Your task to perform on an android device: add a contact in the contacts app Image 0: 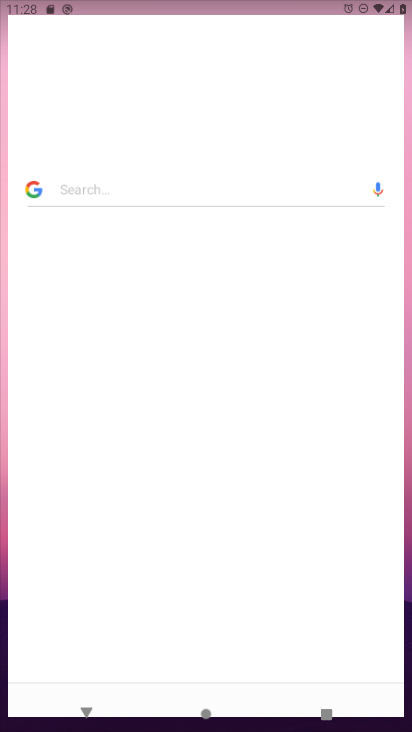
Step 0: drag from (197, 345) to (99, 7)
Your task to perform on an android device: add a contact in the contacts app Image 1: 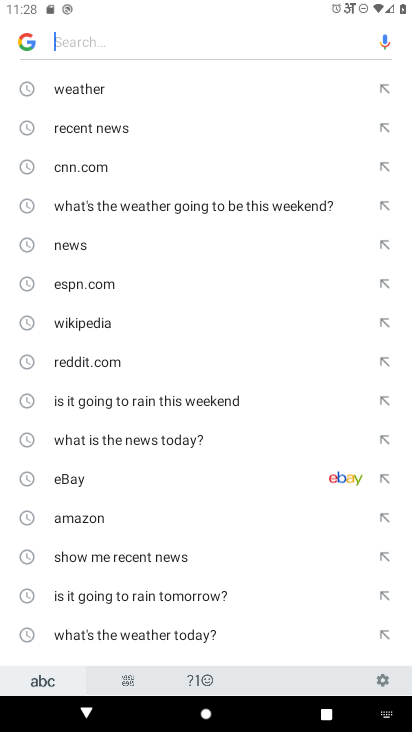
Step 1: press back button
Your task to perform on an android device: add a contact in the contacts app Image 2: 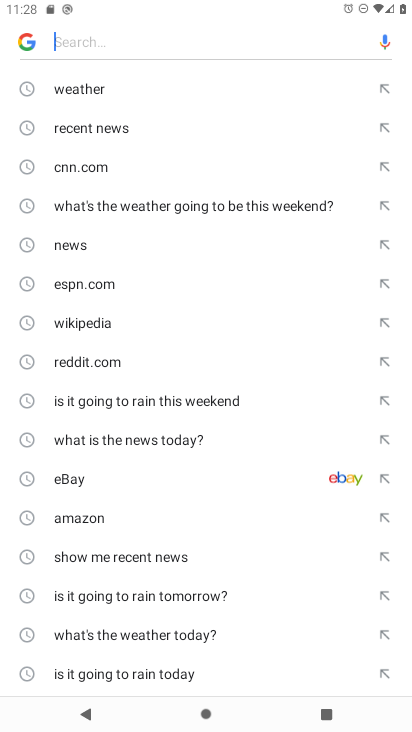
Step 2: press home button
Your task to perform on an android device: add a contact in the contacts app Image 3: 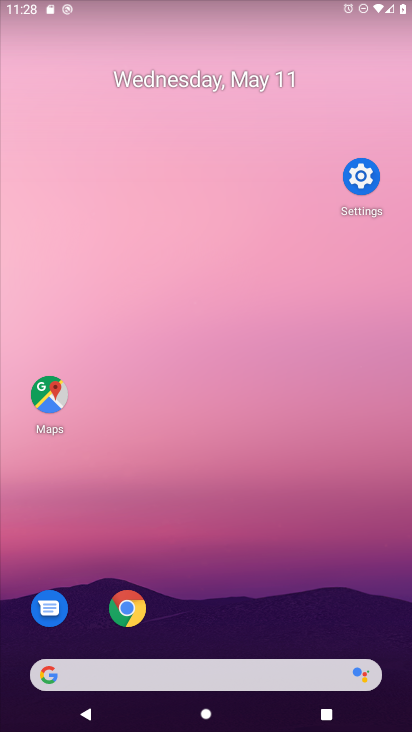
Step 3: drag from (238, 550) to (129, 65)
Your task to perform on an android device: add a contact in the contacts app Image 4: 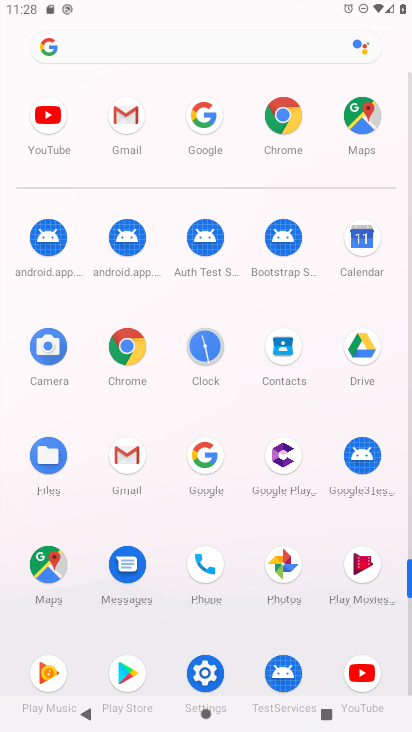
Step 4: click (284, 345)
Your task to perform on an android device: add a contact in the contacts app Image 5: 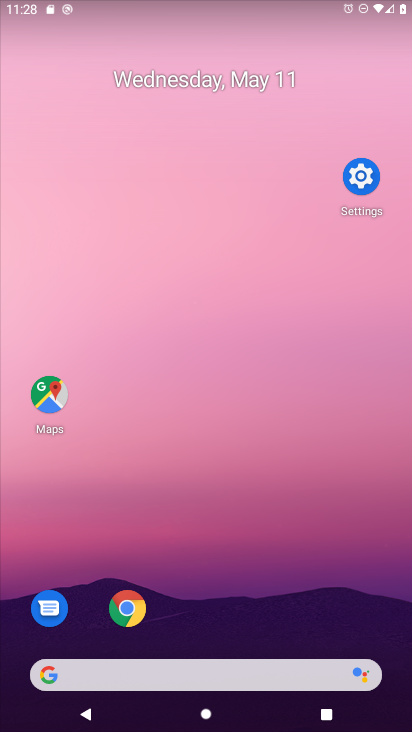
Step 5: drag from (291, 563) to (157, 40)
Your task to perform on an android device: add a contact in the contacts app Image 6: 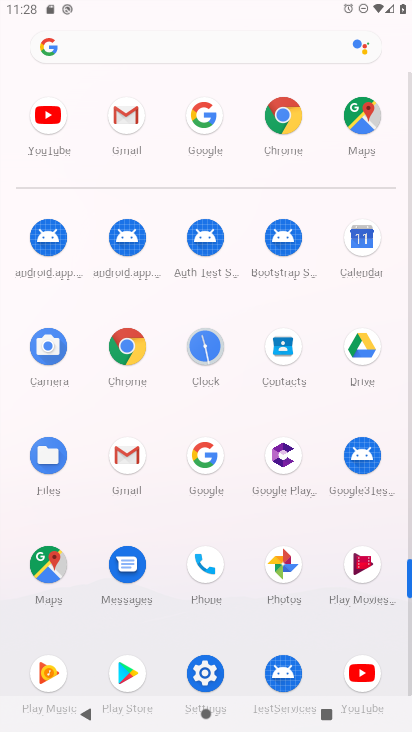
Step 6: click (282, 353)
Your task to perform on an android device: add a contact in the contacts app Image 7: 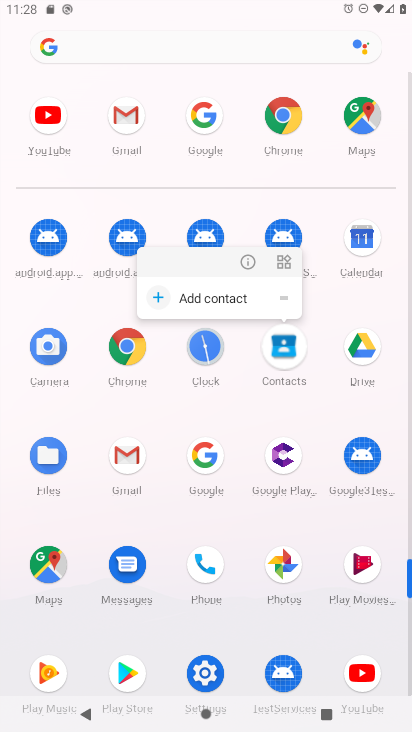
Step 7: click (288, 352)
Your task to perform on an android device: add a contact in the contacts app Image 8: 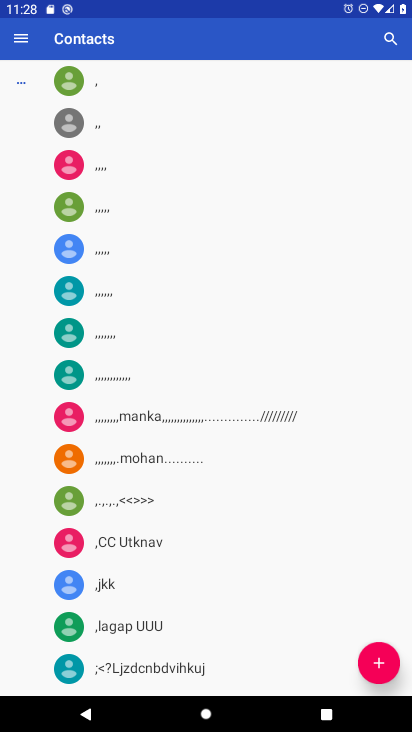
Step 8: click (371, 661)
Your task to perform on an android device: add a contact in the contacts app Image 9: 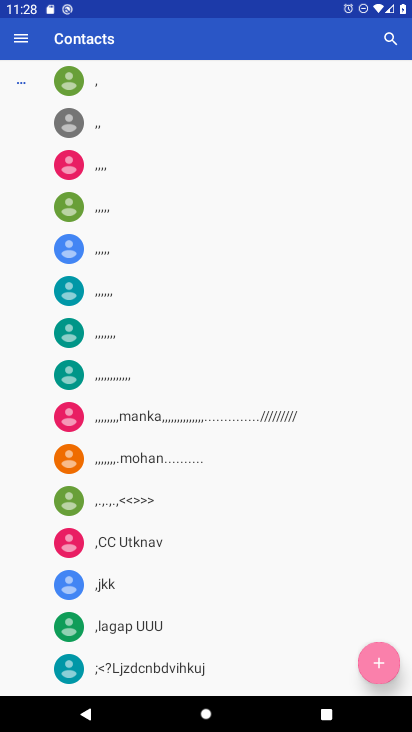
Step 9: click (372, 661)
Your task to perform on an android device: add a contact in the contacts app Image 10: 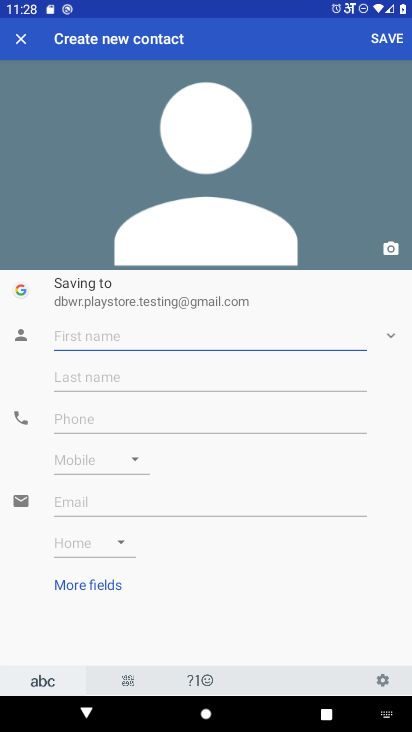
Step 10: click (71, 335)
Your task to perform on an android device: add a contact in the contacts app Image 11: 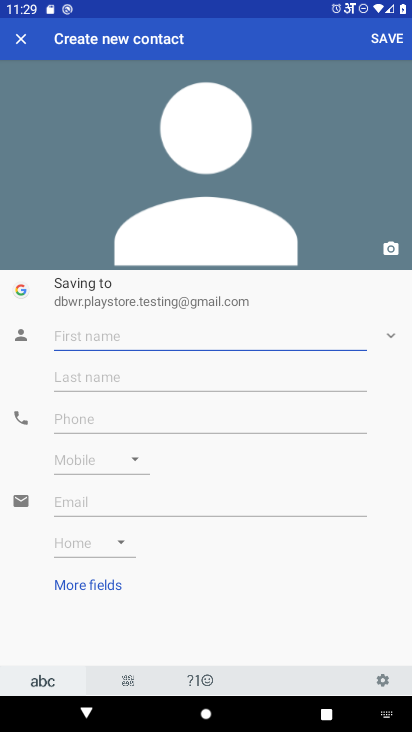
Step 11: type ""
Your task to perform on an android device: add a contact in the contacts app Image 12: 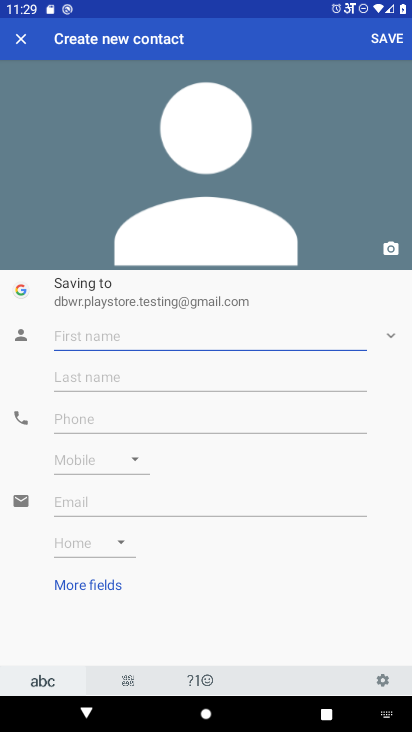
Step 12: type "yutuytiuyiu"
Your task to perform on an android device: add a contact in the contacts app Image 13: 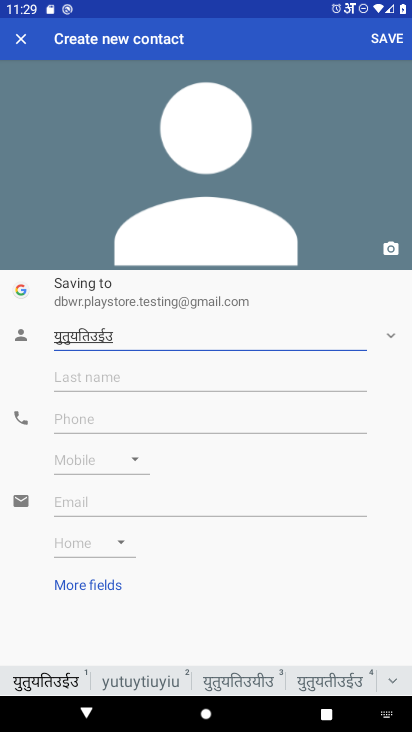
Step 13: click (131, 685)
Your task to perform on an android device: add a contact in the contacts app Image 14: 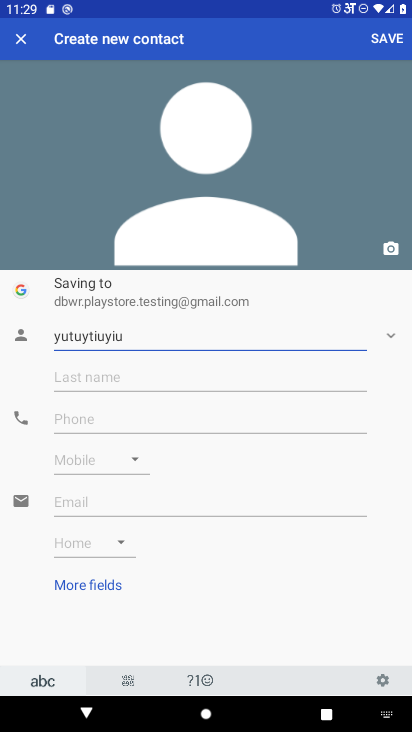
Step 14: click (125, 415)
Your task to perform on an android device: add a contact in the contacts app Image 15: 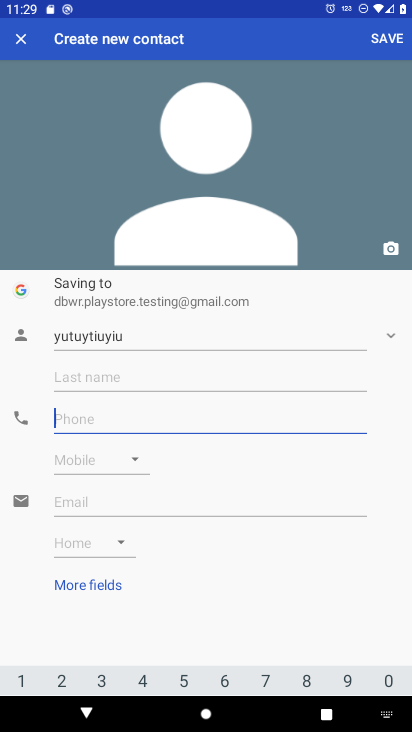
Step 15: click (81, 416)
Your task to perform on an android device: add a contact in the contacts app Image 16: 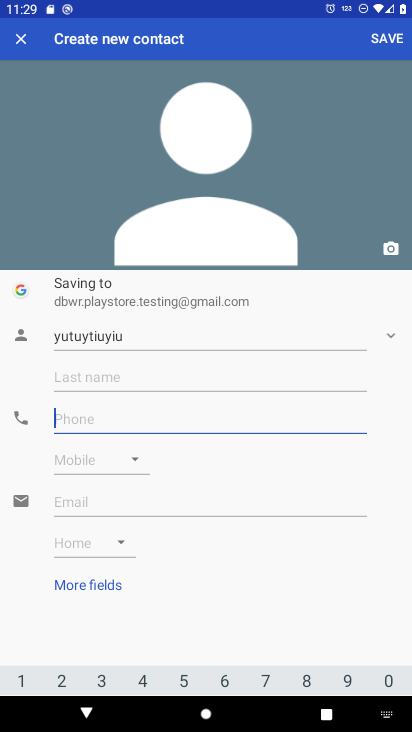
Step 16: type "987986656767"
Your task to perform on an android device: add a contact in the contacts app Image 17: 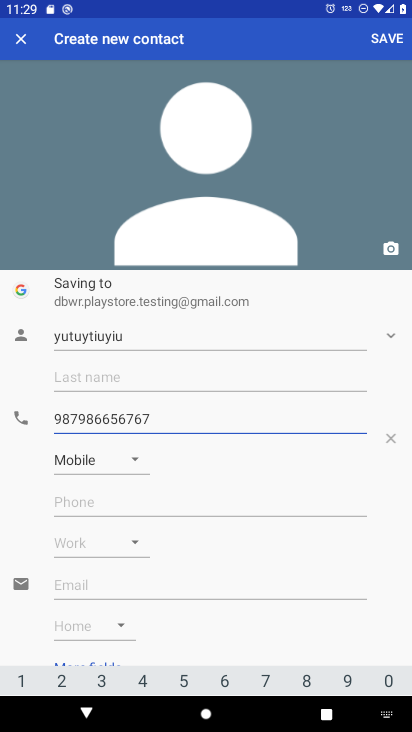
Step 17: click (367, 32)
Your task to perform on an android device: add a contact in the contacts app Image 18: 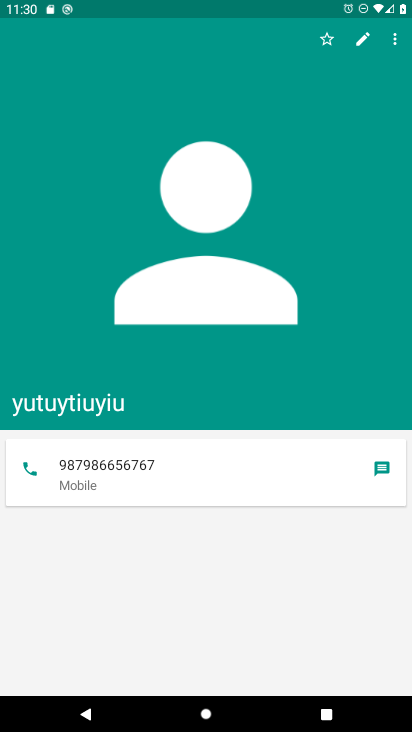
Step 18: task complete